Your task to perform on an android device: Clear the cart on bestbuy.com. Add "dell alienware" to the cart on bestbuy.com, then select checkout. Image 0: 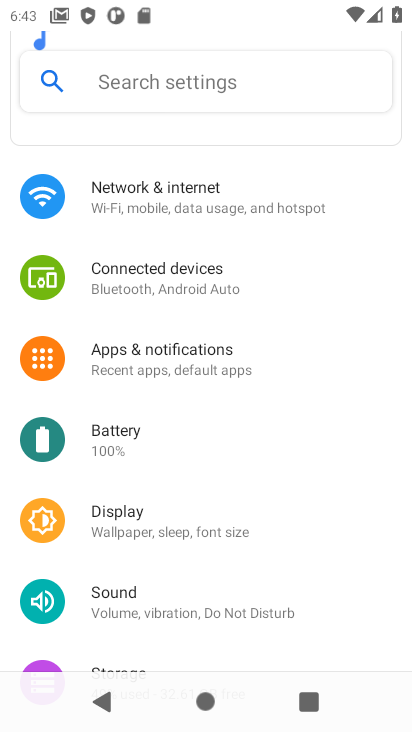
Step 0: press home button
Your task to perform on an android device: Clear the cart on bestbuy.com. Add "dell alienware" to the cart on bestbuy.com, then select checkout. Image 1: 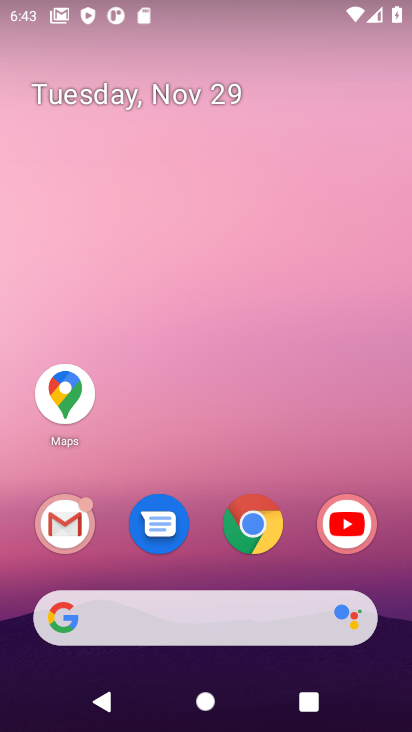
Step 1: click (257, 528)
Your task to perform on an android device: Clear the cart on bestbuy.com. Add "dell alienware" to the cart on bestbuy.com, then select checkout. Image 2: 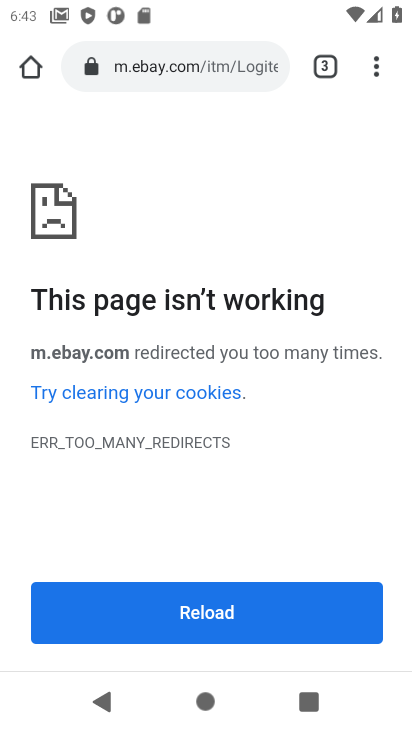
Step 2: click (175, 70)
Your task to perform on an android device: Clear the cart on bestbuy.com. Add "dell alienware" to the cart on bestbuy.com, then select checkout. Image 3: 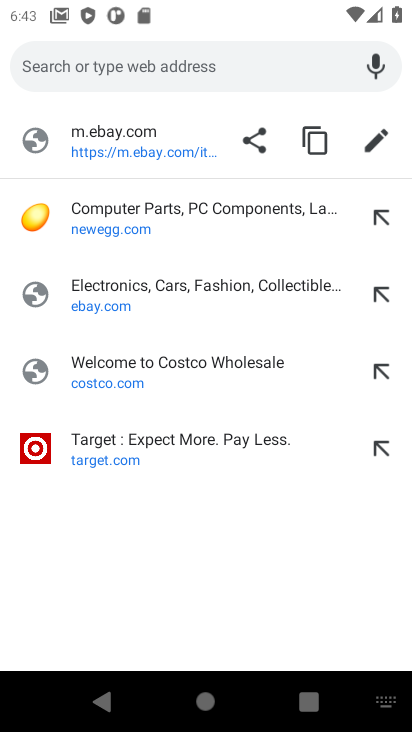
Step 3: type "bestbuy.com"
Your task to perform on an android device: Clear the cart on bestbuy.com. Add "dell alienware" to the cart on bestbuy.com, then select checkout. Image 4: 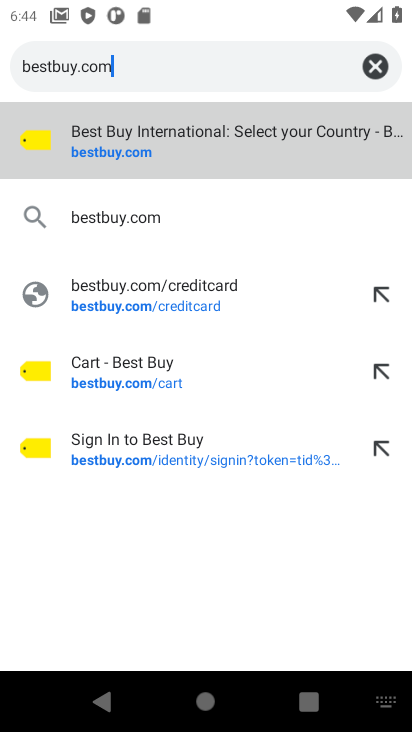
Step 4: click (121, 160)
Your task to perform on an android device: Clear the cart on bestbuy.com. Add "dell alienware" to the cart on bestbuy.com, then select checkout. Image 5: 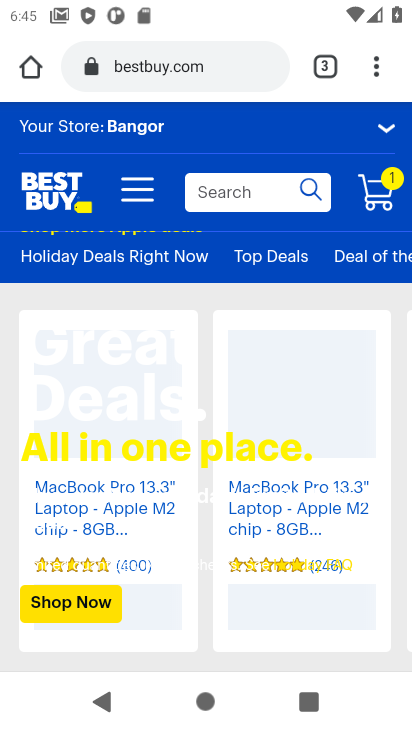
Step 5: click (370, 199)
Your task to perform on an android device: Clear the cart on bestbuy.com. Add "dell alienware" to the cart on bestbuy.com, then select checkout. Image 6: 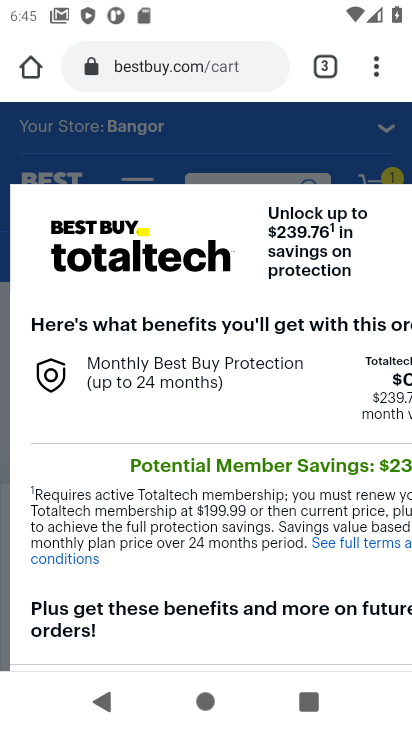
Step 6: drag from (302, 578) to (303, 359)
Your task to perform on an android device: Clear the cart on bestbuy.com. Add "dell alienware" to the cart on bestbuy.com, then select checkout. Image 7: 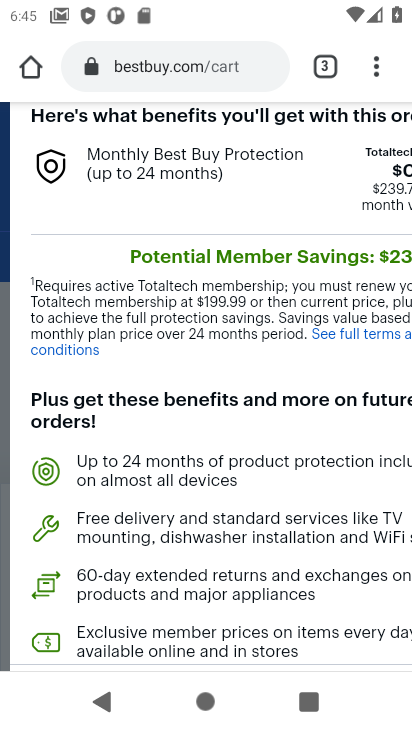
Step 7: drag from (281, 158) to (252, 448)
Your task to perform on an android device: Clear the cart on bestbuy.com. Add "dell alienware" to the cart on bestbuy.com, then select checkout. Image 8: 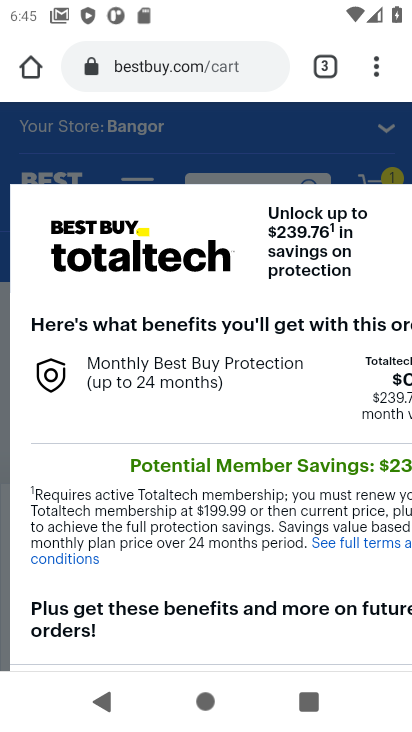
Step 8: click (213, 154)
Your task to perform on an android device: Clear the cart on bestbuy.com. Add "dell alienware" to the cart on bestbuy.com, then select checkout. Image 9: 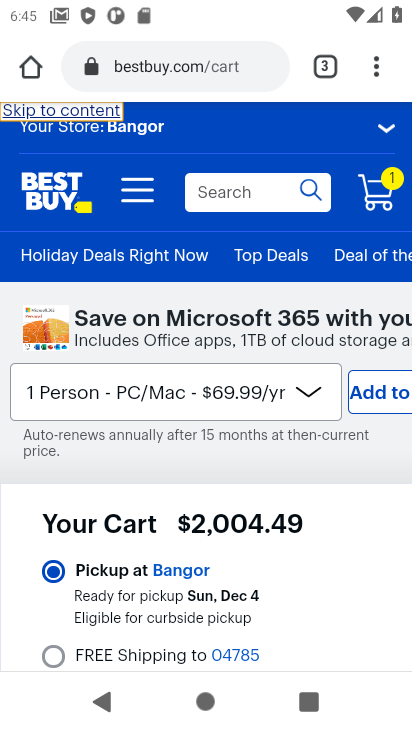
Step 9: drag from (291, 597) to (286, 217)
Your task to perform on an android device: Clear the cart on bestbuy.com. Add "dell alienware" to the cart on bestbuy.com, then select checkout. Image 10: 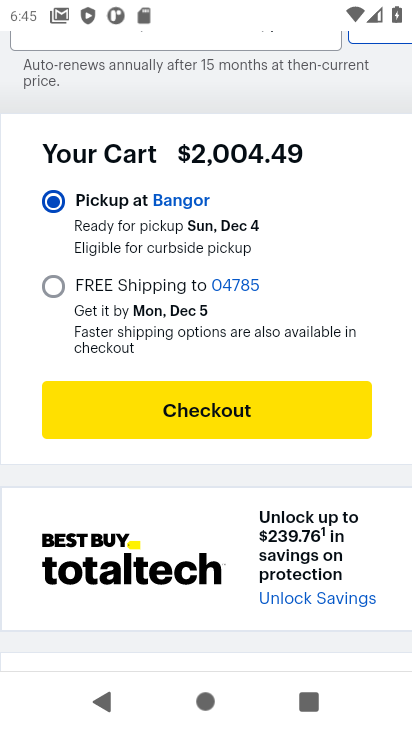
Step 10: drag from (266, 331) to (276, 197)
Your task to perform on an android device: Clear the cart on bestbuy.com. Add "dell alienware" to the cart on bestbuy.com, then select checkout. Image 11: 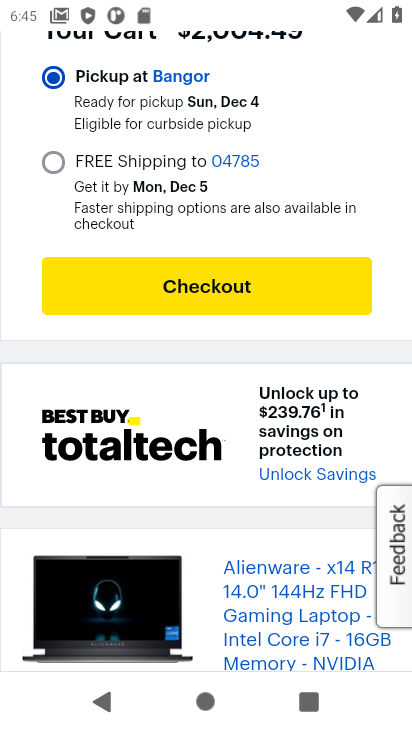
Step 11: drag from (248, 433) to (255, 124)
Your task to perform on an android device: Clear the cart on bestbuy.com. Add "dell alienware" to the cart on bestbuy.com, then select checkout. Image 12: 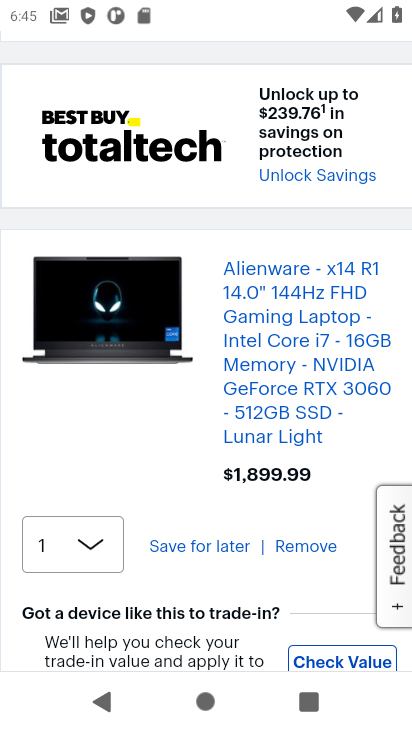
Step 12: click (296, 551)
Your task to perform on an android device: Clear the cart on bestbuy.com. Add "dell alienware" to the cart on bestbuy.com, then select checkout. Image 13: 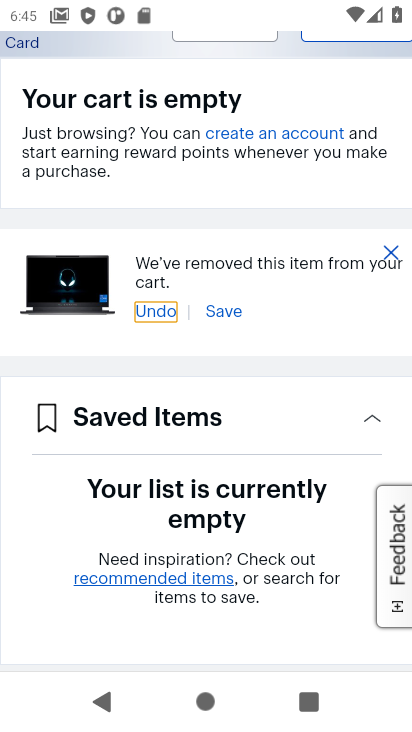
Step 13: drag from (239, 243) to (215, 559)
Your task to perform on an android device: Clear the cart on bestbuy.com. Add "dell alienware" to the cart on bestbuy.com, then select checkout. Image 14: 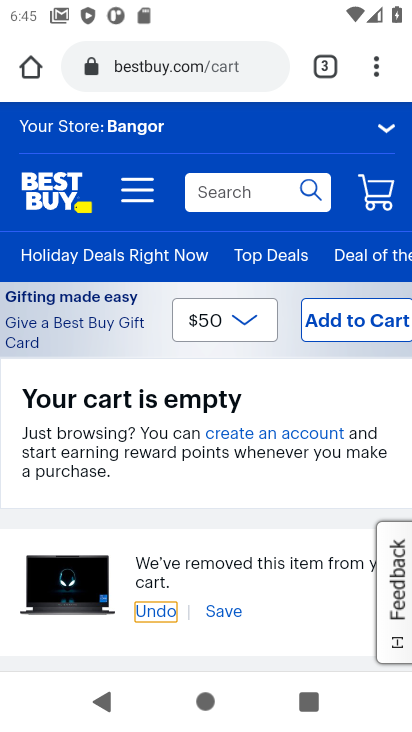
Step 14: click (210, 192)
Your task to perform on an android device: Clear the cart on bestbuy.com. Add "dell alienware" to the cart on bestbuy.com, then select checkout. Image 15: 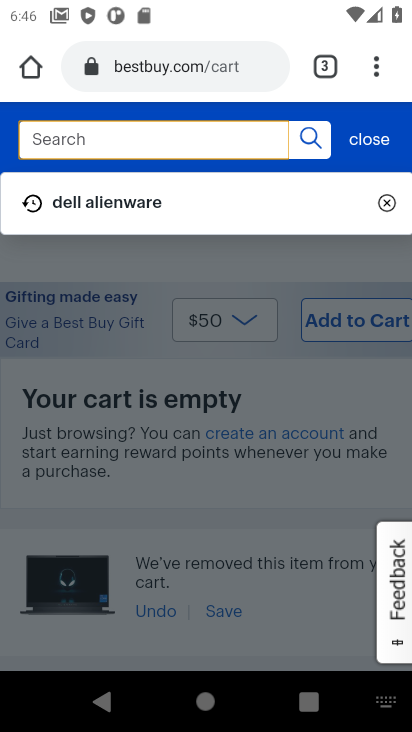
Step 15: type "dell alienware"
Your task to perform on an android device: Clear the cart on bestbuy.com. Add "dell alienware" to the cart on bestbuy.com, then select checkout. Image 16: 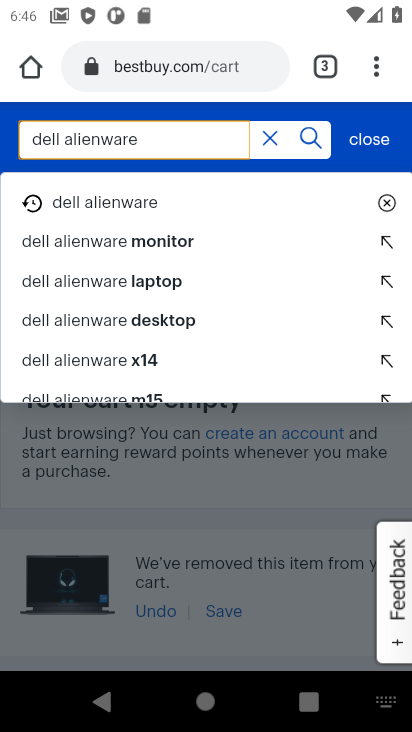
Step 16: click (106, 206)
Your task to perform on an android device: Clear the cart on bestbuy.com. Add "dell alienware" to the cart on bestbuy.com, then select checkout. Image 17: 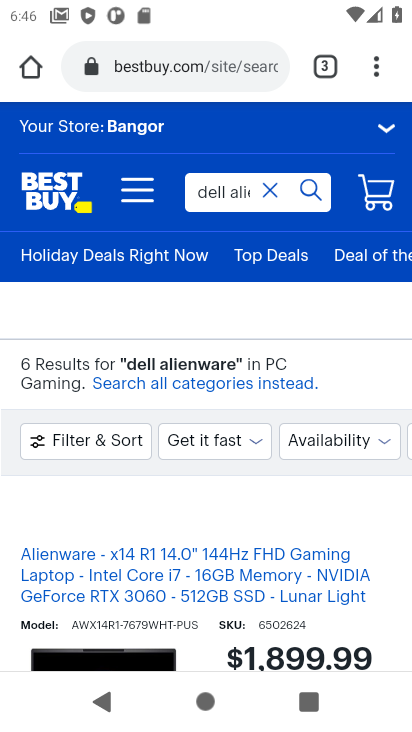
Step 17: drag from (125, 508) to (113, 233)
Your task to perform on an android device: Clear the cart on bestbuy.com. Add "dell alienware" to the cart on bestbuy.com, then select checkout. Image 18: 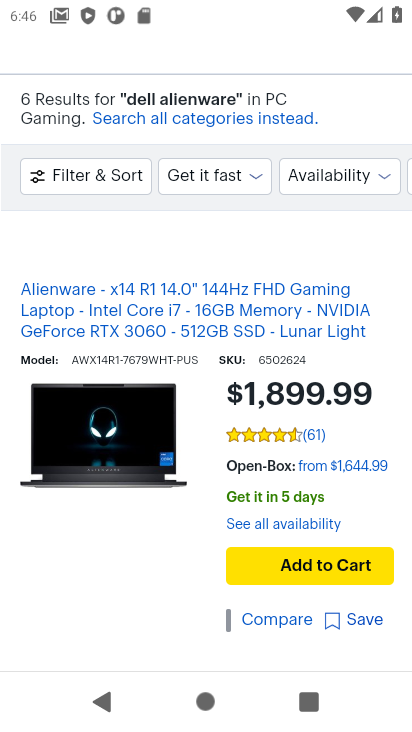
Step 18: click (318, 587)
Your task to perform on an android device: Clear the cart on bestbuy.com. Add "dell alienware" to the cart on bestbuy.com, then select checkout. Image 19: 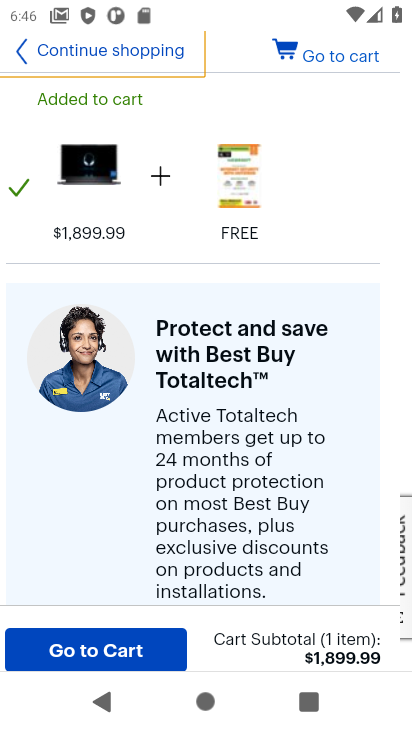
Step 19: click (339, 55)
Your task to perform on an android device: Clear the cart on bestbuy.com. Add "dell alienware" to the cart on bestbuy.com, then select checkout. Image 20: 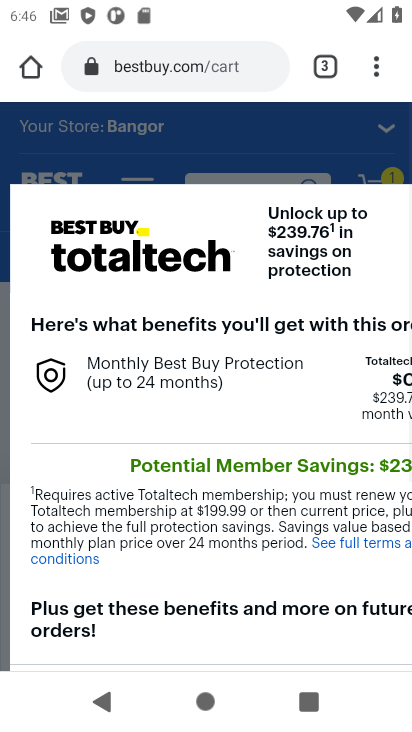
Step 20: drag from (323, 601) to (307, 674)
Your task to perform on an android device: Clear the cart on bestbuy.com. Add "dell alienware" to the cart on bestbuy.com, then select checkout. Image 21: 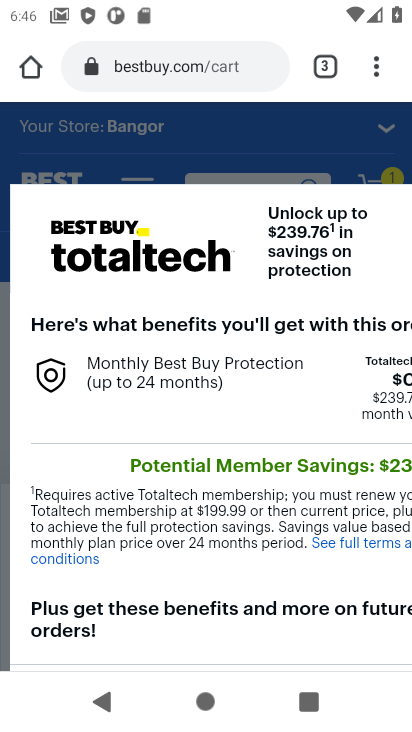
Step 21: click (227, 153)
Your task to perform on an android device: Clear the cart on bestbuy.com. Add "dell alienware" to the cart on bestbuy.com, then select checkout. Image 22: 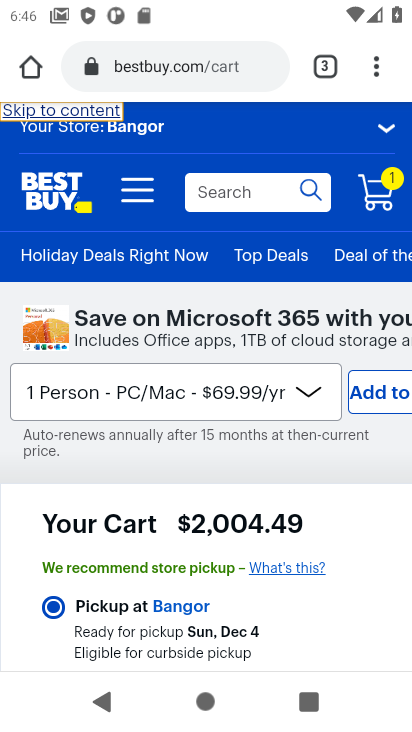
Step 22: drag from (307, 583) to (290, 246)
Your task to perform on an android device: Clear the cart on bestbuy.com. Add "dell alienware" to the cart on bestbuy.com, then select checkout. Image 23: 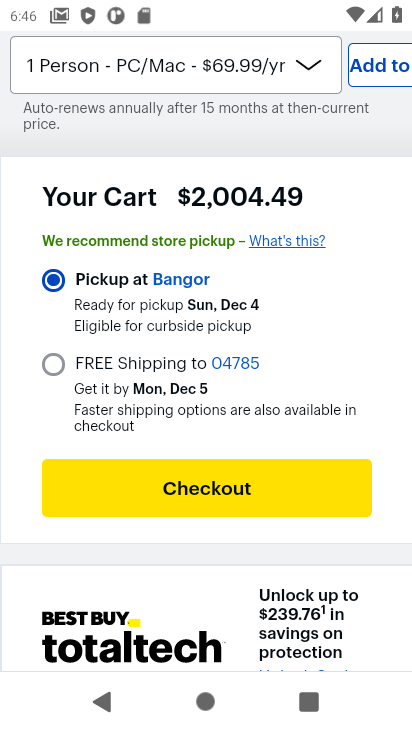
Step 23: click (197, 491)
Your task to perform on an android device: Clear the cart on bestbuy.com. Add "dell alienware" to the cart on bestbuy.com, then select checkout. Image 24: 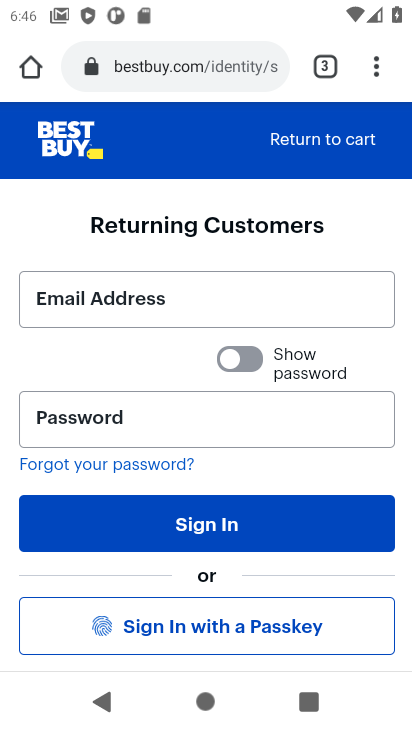
Step 24: task complete